Your task to perform on an android device: Open location settings Image 0: 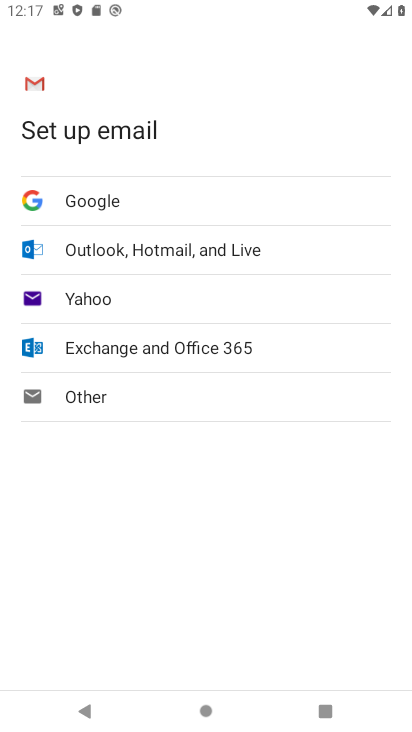
Step 0: press home button
Your task to perform on an android device: Open location settings Image 1: 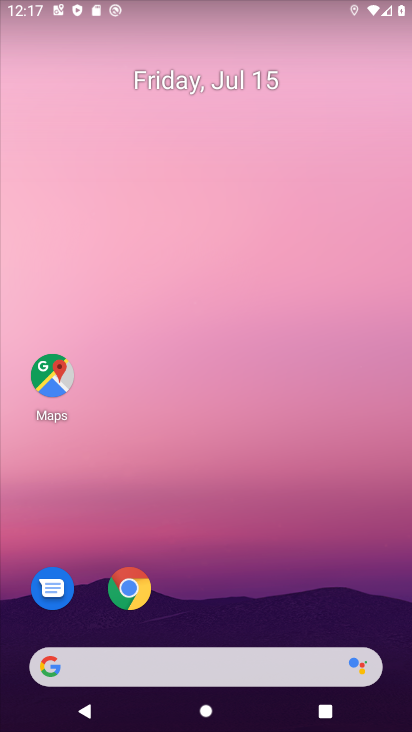
Step 1: drag from (158, 691) to (273, 101)
Your task to perform on an android device: Open location settings Image 2: 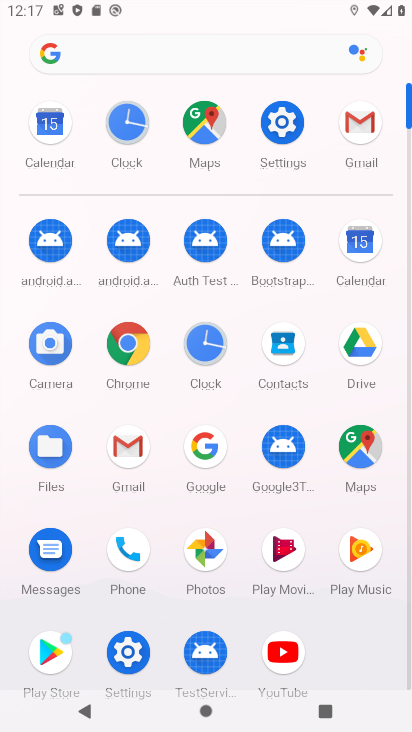
Step 2: click (282, 134)
Your task to perform on an android device: Open location settings Image 3: 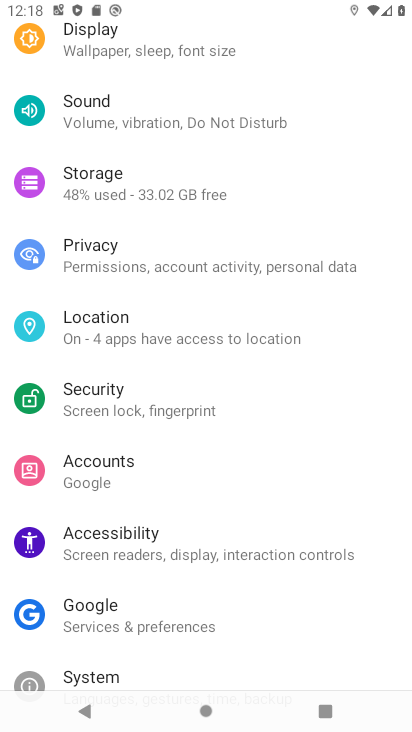
Step 3: click (230, 334)
Your task to perform on an android device: Open location settings Image 4: 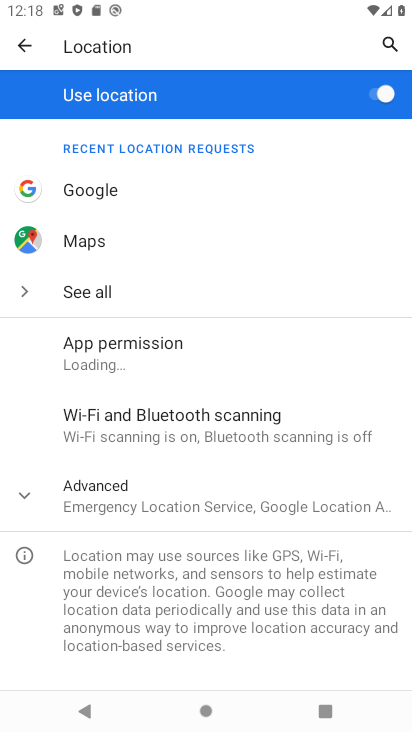
Step 4: task complete